Your task to perform on an android device: turn off improve location accuracy Image 0: 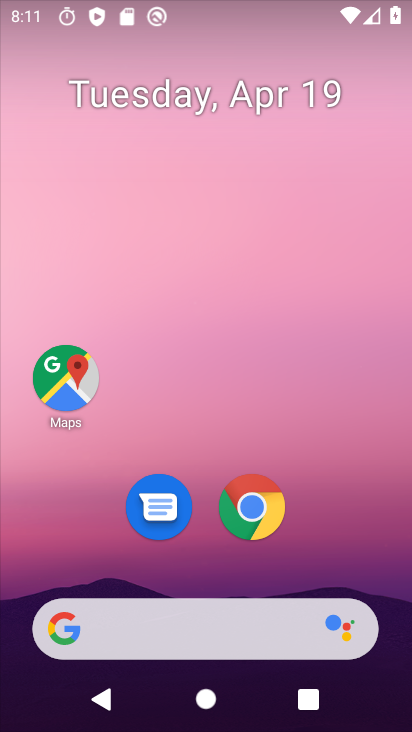
Step 0: drag from (345, 499) to (313, 99)
Your task to perform on an android device: turn off improve location accuracy Image 1: 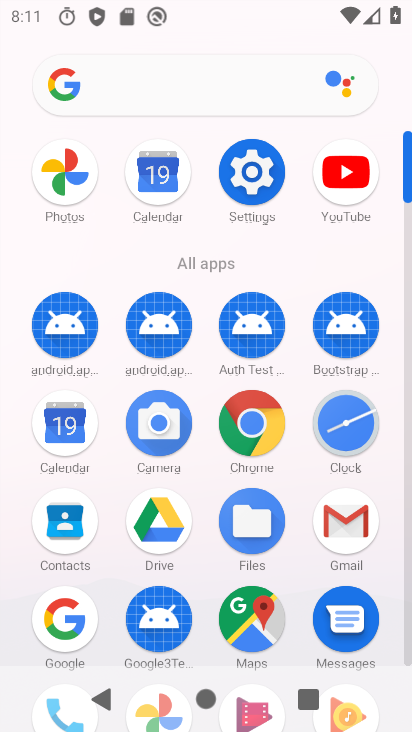
Step 1: click (259, 164)
Your task to perform on an android device: turn off improve location accuracy Image 2: 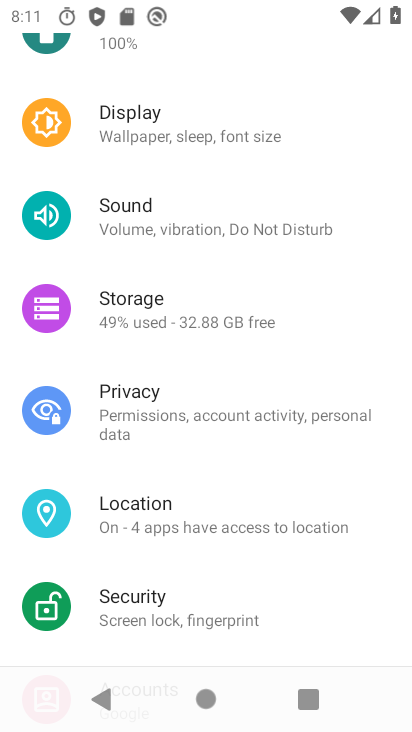
Step 2: click (155, 523)
Your task to perform on an android device: turn off improve location accuracy Image 3: 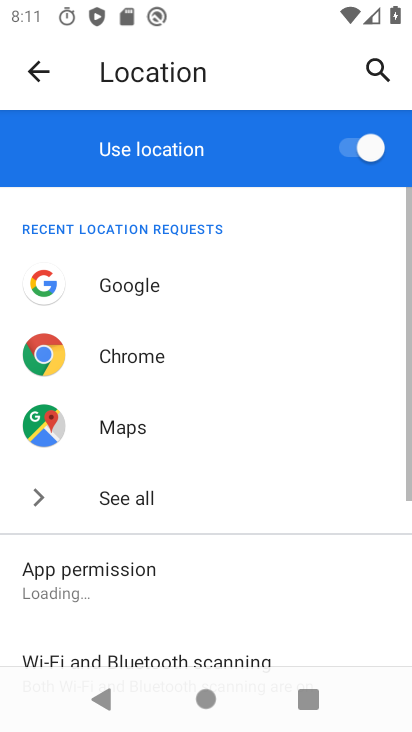
Step 3: drag from (149, 636) to (179, 232)
Your task to perform on an android device: turn off improve location accuracy Image 4: 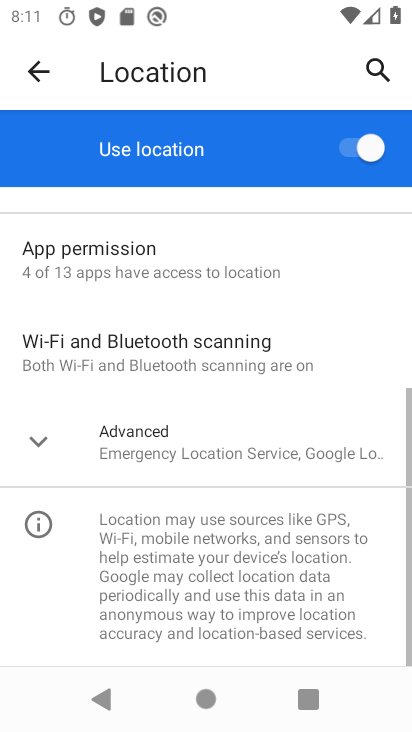
Step 4: click (161, 442)
Your task to perform on an android device: turn off improve location accuracy Image 5: 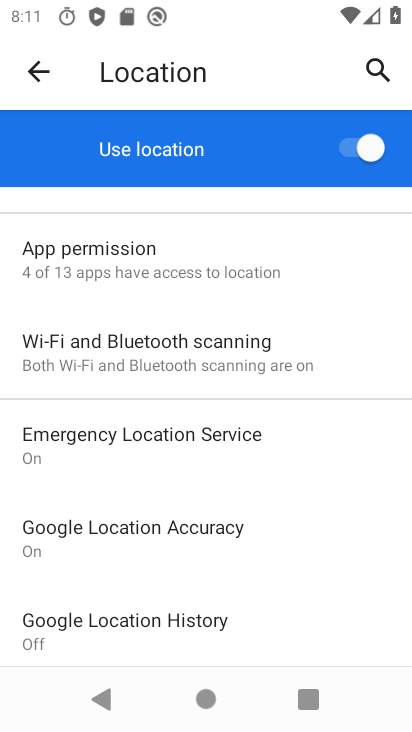
Step 5: click (28, 527)
Your task to perform on an android device: turn off improve location accuracy Image 6: 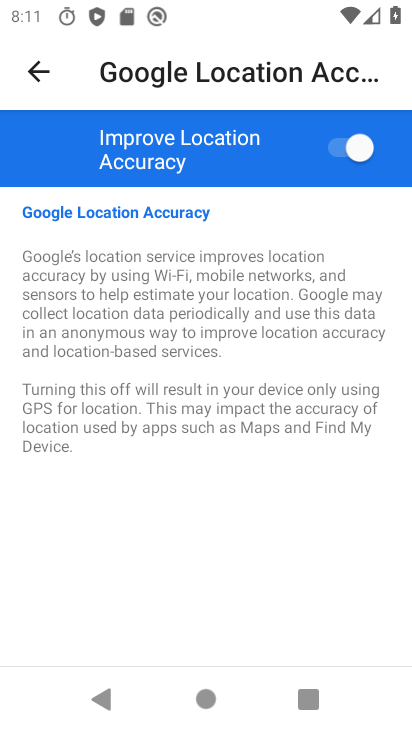
Step 6: click (365, 147)
Your task to perform on an android device: turn off improve location accuracy Image 7: 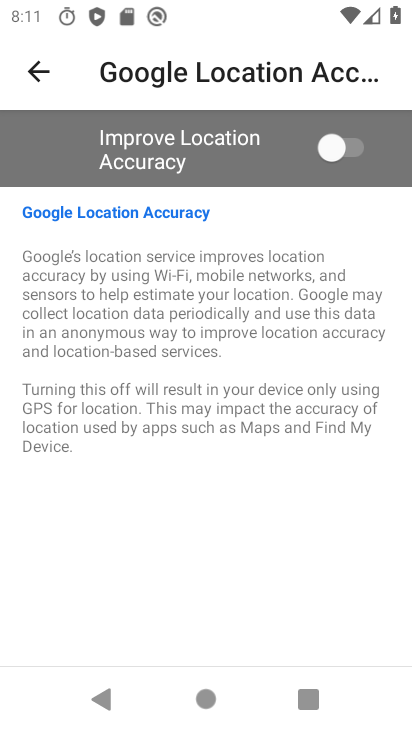
Step 7: task complete